Your task to perform on an android device: turn on wifi Image 0: 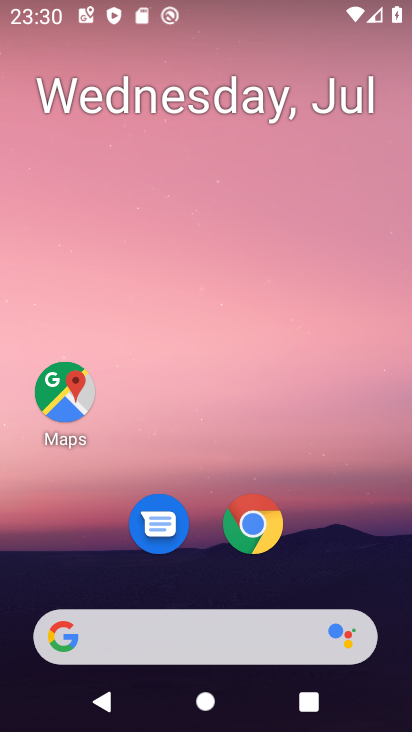
Step 0: drag from (173, 633) to (333, 62)
Your task to perform on an android device: turn on wifi Image 1: 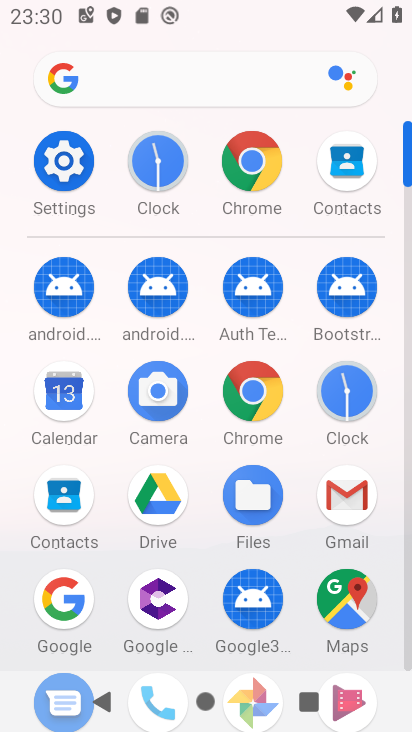
Step 1: click (53, 169)
Your task to perform on an android device: turn on wifi Image 2: 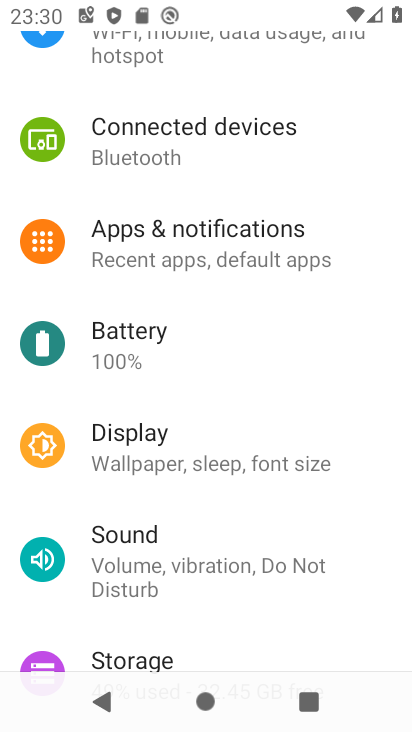
Step 2: drag from (282, 79) to (277, 646)
Your task to perform on an android device: turn on wifi Image 3: 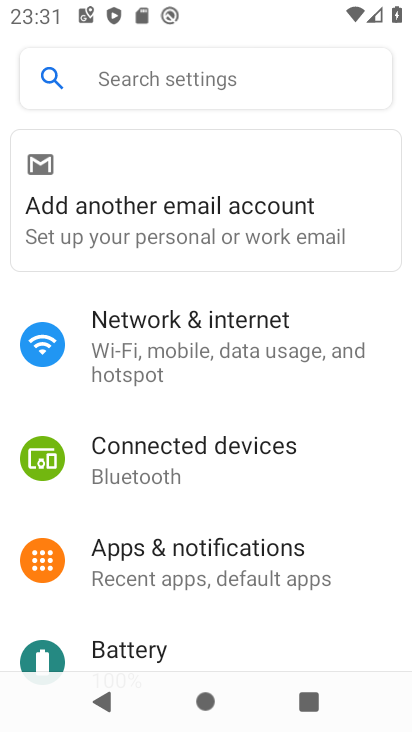
Step 3: click (192, 329)
Your task to perform on an android device: turn on wifi Image 4: 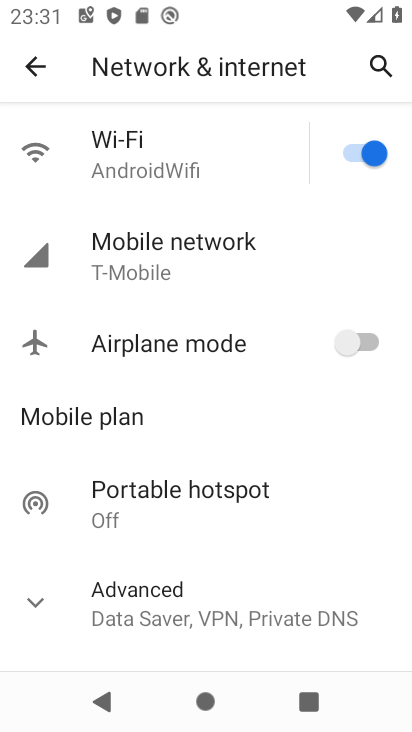
Step 4: task complete